Your task to perform on an android device: turn on location history Image 0: 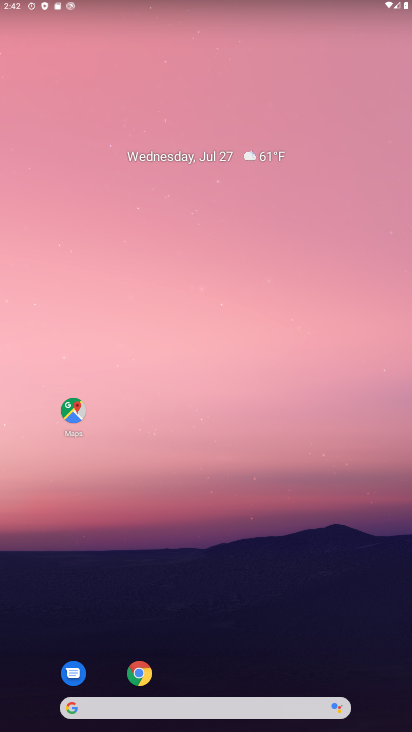
Step 0: drag from (48, 665) to (239, 21)
Your task to perform on an android device: turn on location history Image 1: 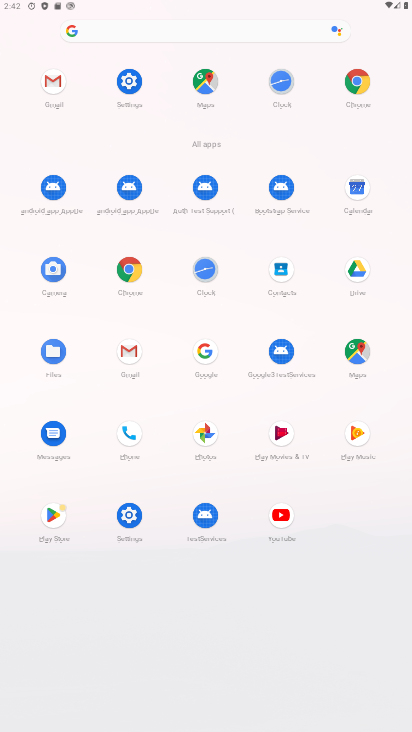
Step 1: click (134, 524)
Your task to perform on an android device: turn on location history Image 2: 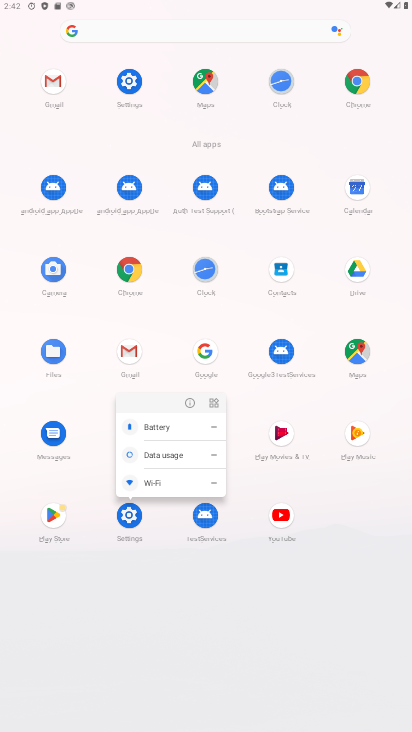
Step 2: click (125, 521)
Your task to perform on an android device: turn on location history Image 3: 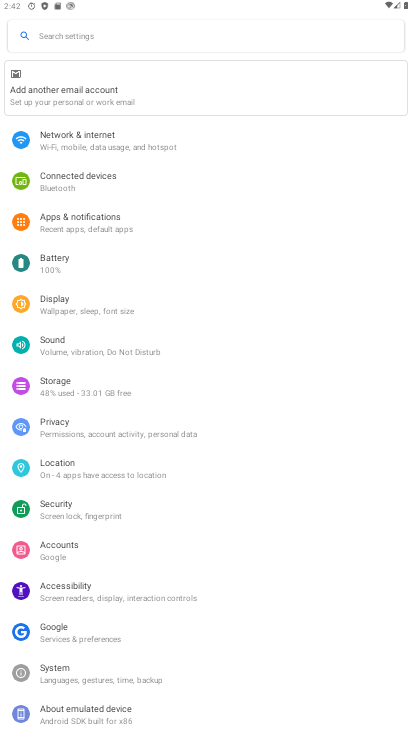
Step 3: click (59, 462)
Your task to perform on an android device: turn on location history Image 4: 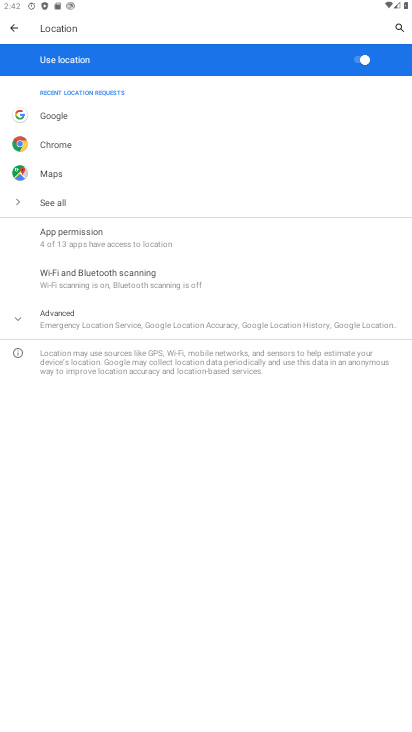
Step 4: task complete